Your task to perform on an android device: Open maps Image 0: 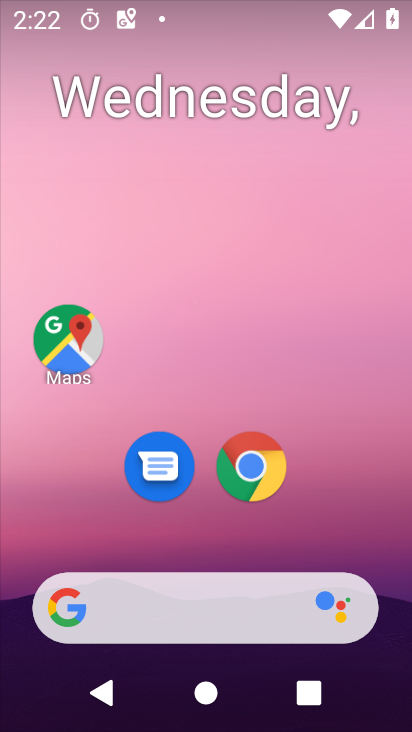
Step 0: click (58, 348)
Your task to perform on an android device: Open maps Image 1: 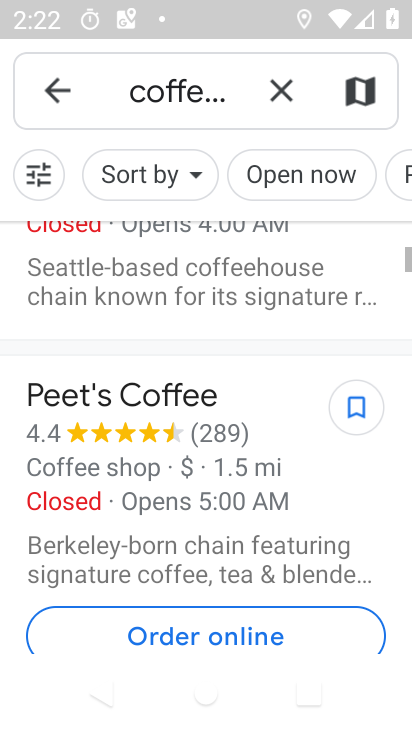
Step 1: task complete